Your task to perform on an android device: Go to Google maps Image 0: 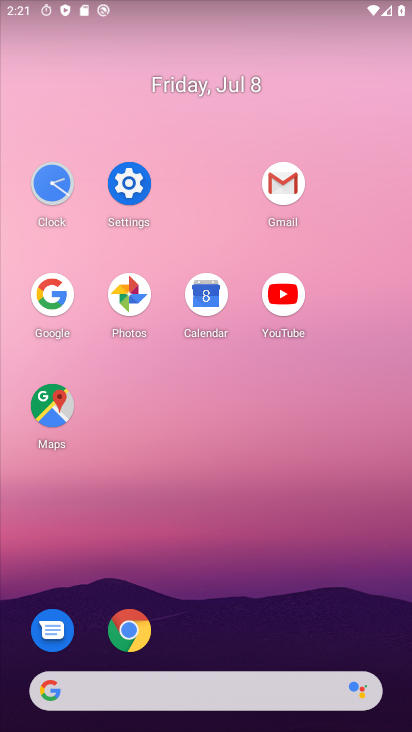
Step 0: click (59, 388)
Your task to perform on an android device: Go to Google maps Image 1: 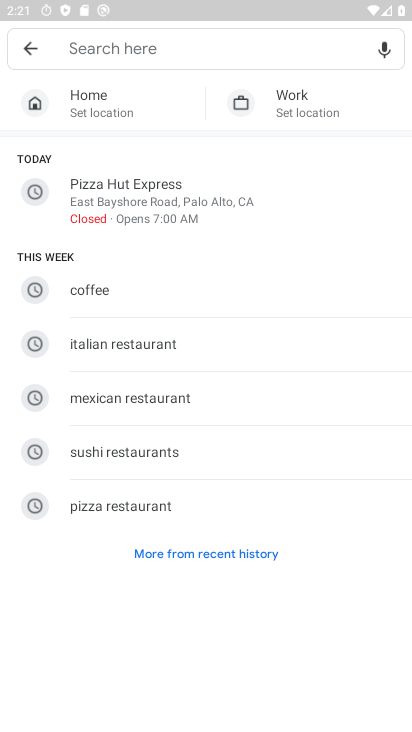
Step 1: task complete